Your task to perform on an android device: Search for sushi restaurants on Maps Image 0: 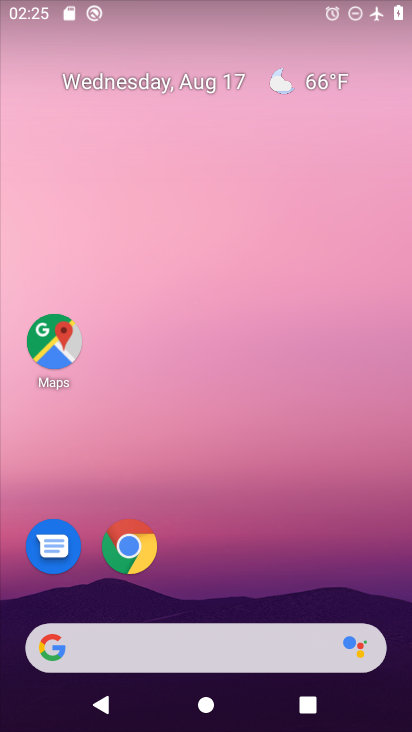
Step 0: click (51, 342)
Your task to perform on an android device: Search for sushi restaurants on Maps Image 1: 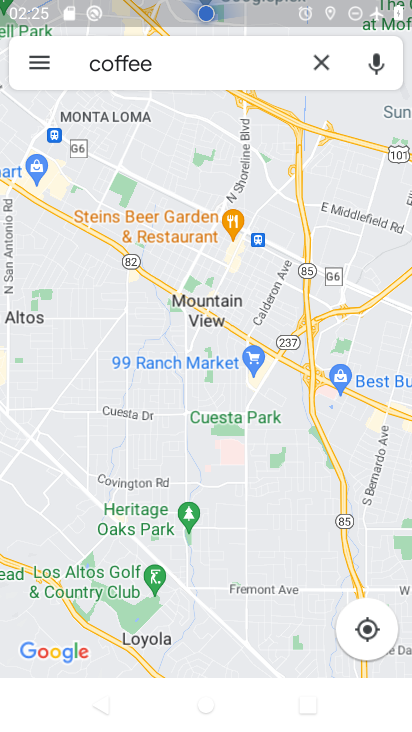
Step 1: click (317, 52)
Your task to perform on an android device: Search for sushi restaurants on Maps Image 2: 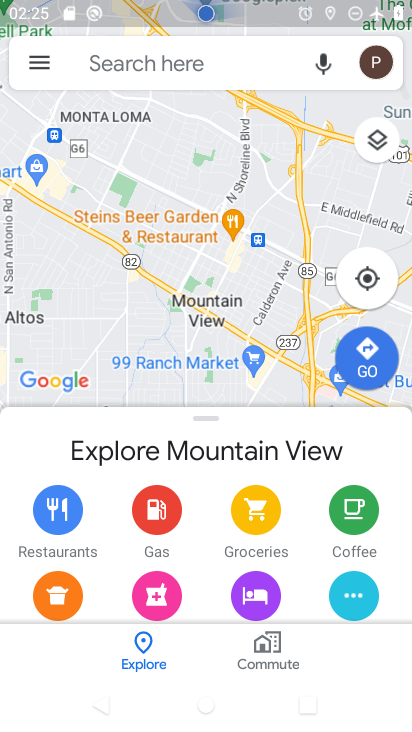
Step 2: click (180, 57)
Your task to perform on an android device: Search for sushi restaurants on Maps Image 3: 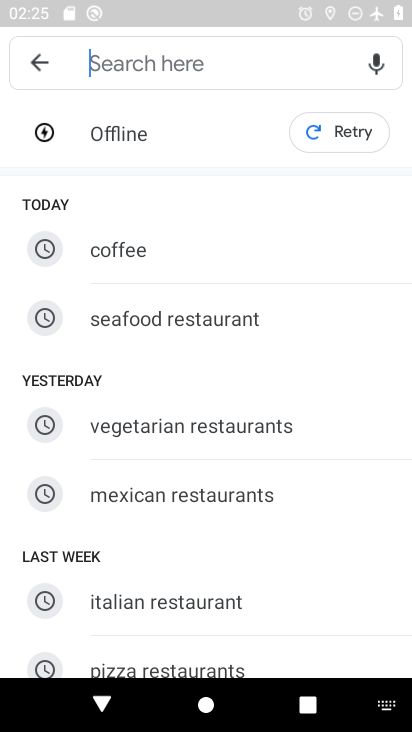
Step 3: type "sushi restaurants"
Your task to perform on an android device: Search for sushi restaurants on Maps Image 4: 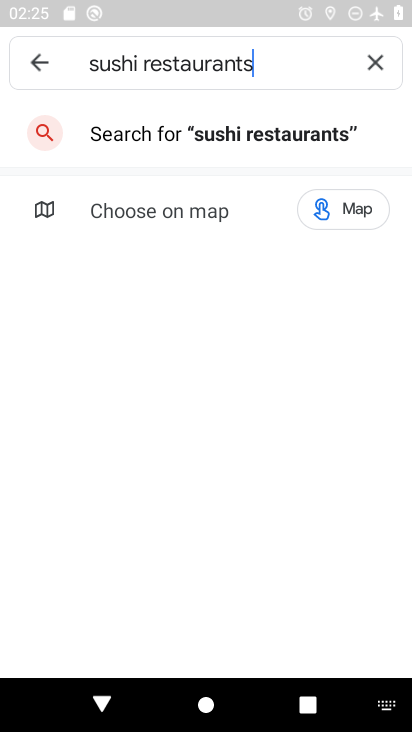
Step 4: click (247, 136)
Your task to perform on an android device: Search for sushi restaurants on Maps Image 5: 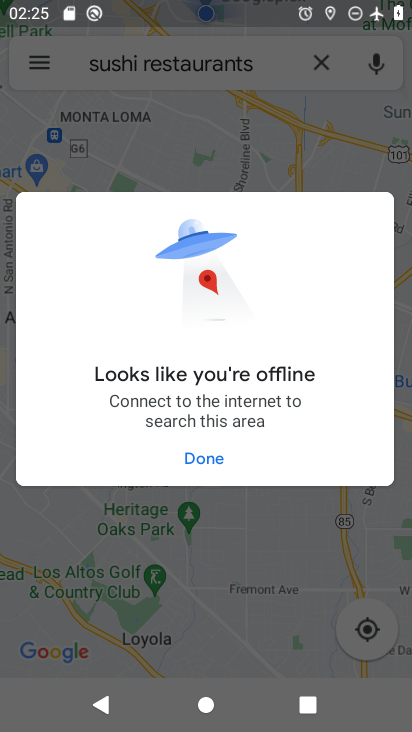
Step 5: click (208, 456)
Your task to perform on an android device: Search for sushi restaurants on Maps Image 6: 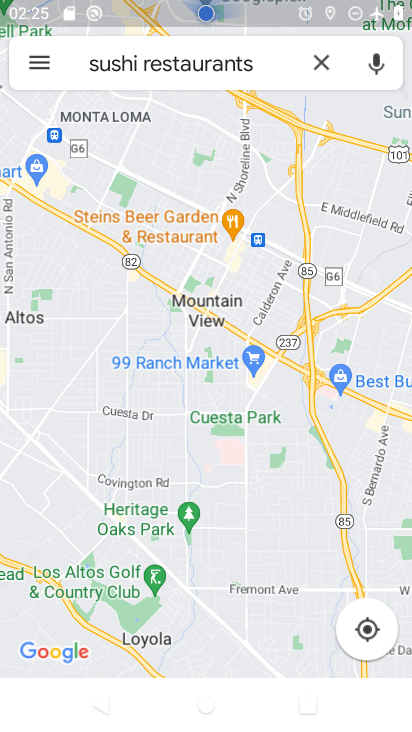
Step 6: task complete